Your task to perform on an android device: What's the weather going to be tomorrow? Image 0: 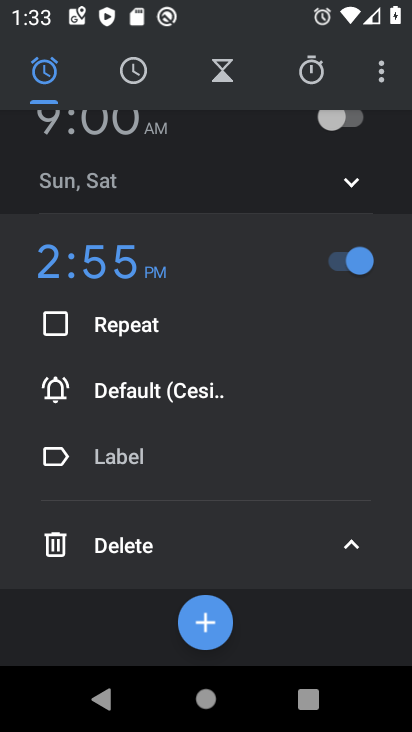
Step 0: press home button
Your task to perform on an android device: What's the weather going to be tomorrow? Image 1: 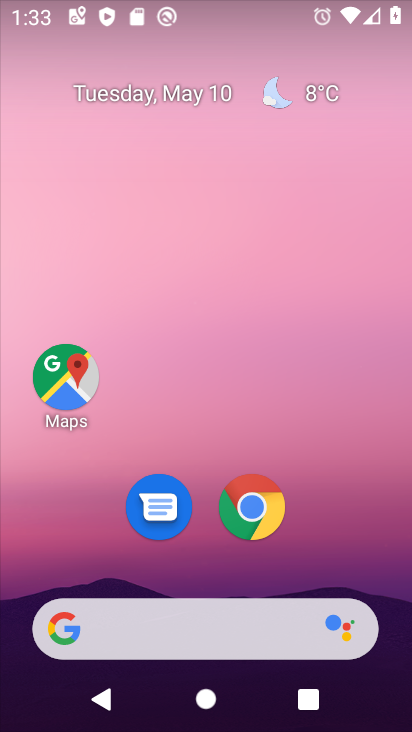
Step 1: drag from (231, 721) to (235, 274)
Your task to perform on an android device: What's the weather going to be tomorrow? Image 2: 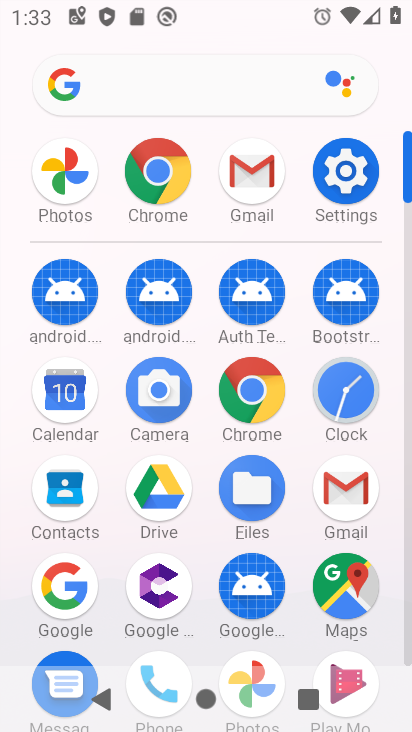
Step 2: drag from (297, 518) to (301, 143)
Your task to perform on an android device: What's the weather going to be tomorrow? Image 3: 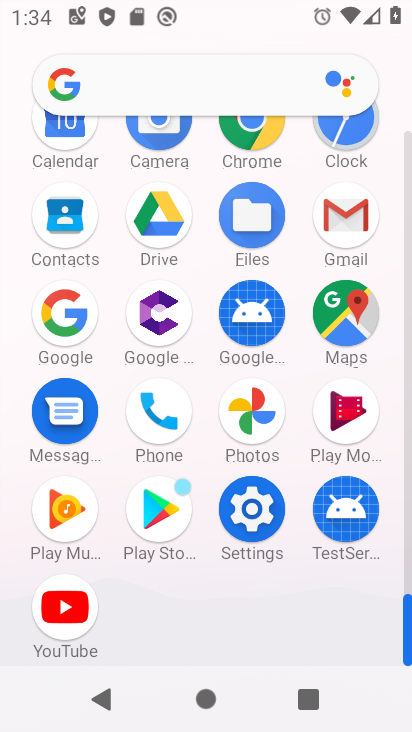
Step 3: click (60, 317)
Your task to perform on an android device: What's the weather going to be tomorrow? Image 4: 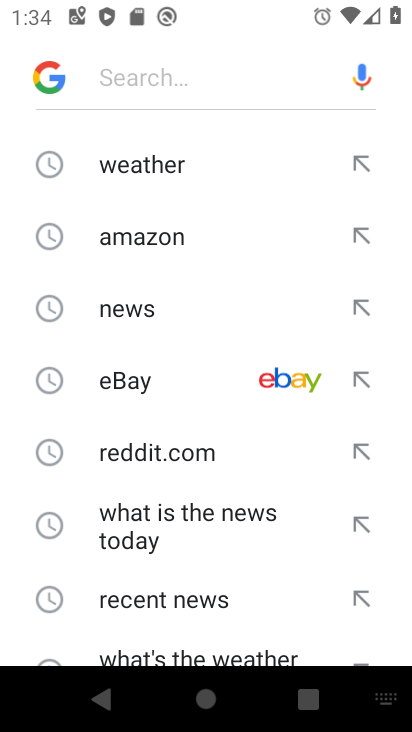
Step 4: click (136, 161)
Your task to perform on an android device: What's the weather going to be tomorrow? Image 5: 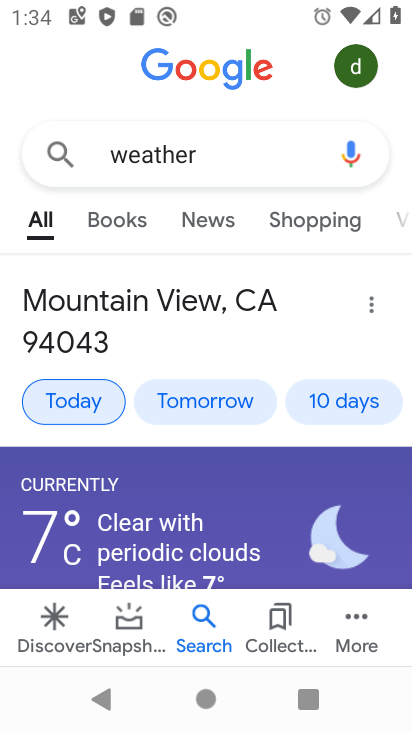
Step 5: click (193, 401)
Your task to perform on an android device: What's the weather going to be tomorrow? Image 6: 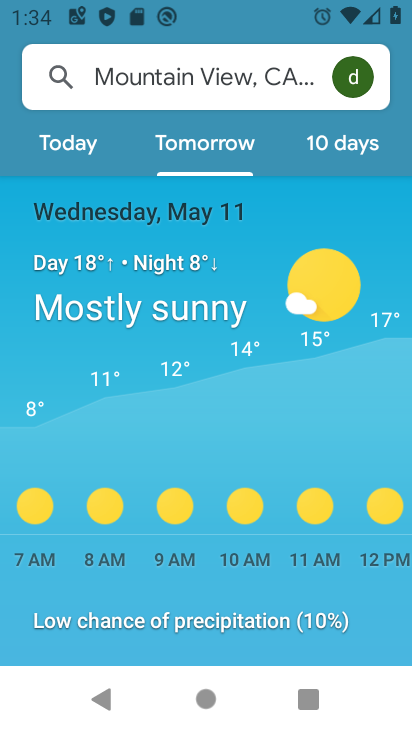
Step 6: task complete